Your task to perform on an android device: Search for Italian restaurants on Maps Image 0: 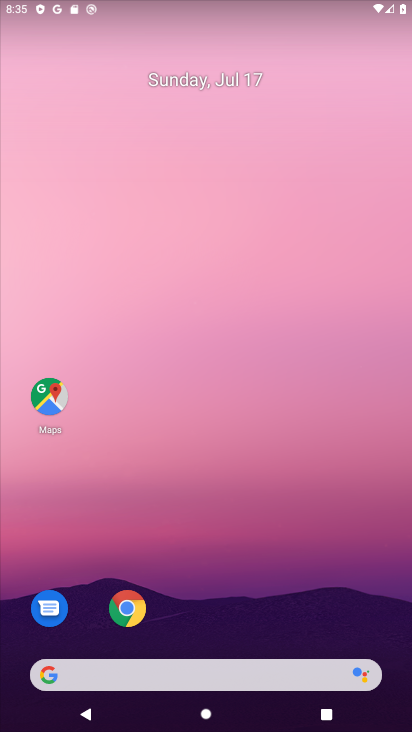
Step 0: drag from (171, 652) to (254, 314)
Your task to perform on an android device: Search for Italian restaurants on Maps Image 1: 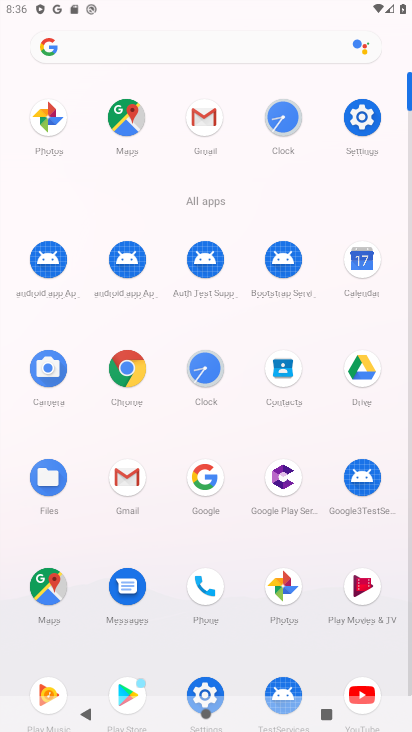
Step 1: click (135, 131)
Your task to perform on an android device: Search for Italian restaurants on Maps Image 2: 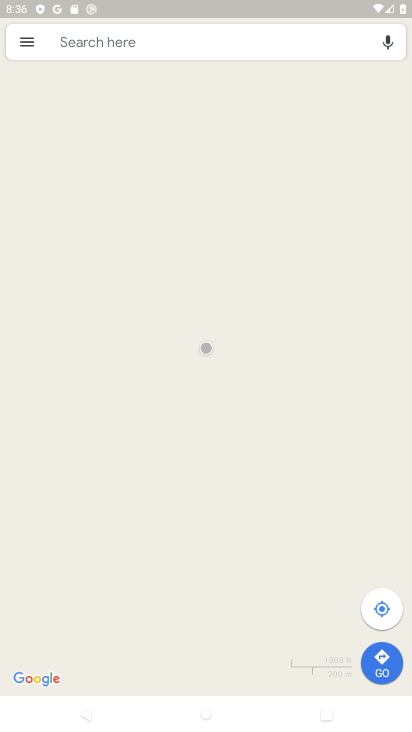
Step 2: click (151, 52)
Your task to perform on an android device: Search for Italian restaurants on Maps Image 3: 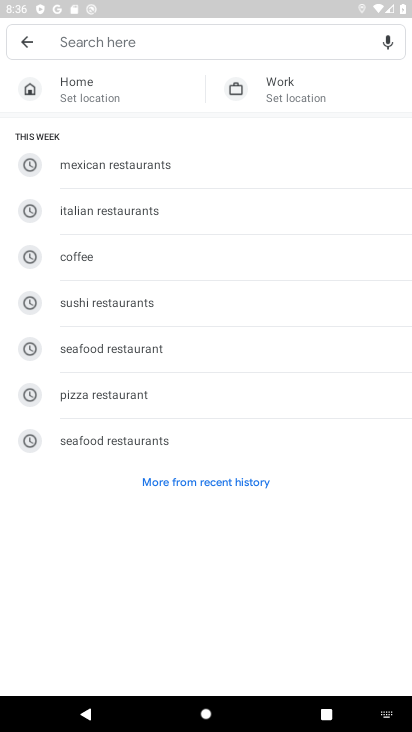
Step 3: click (89, 212)
Your task to perform on an android device: Search for Italian restaurants on Maps Image 4: 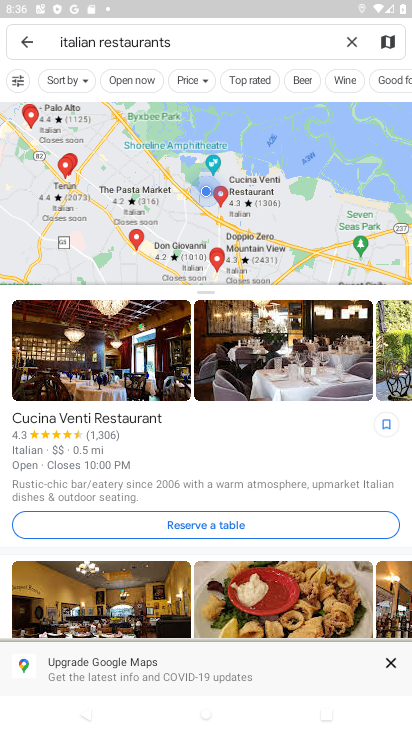
Step 4: task complete